Your task to perform on an android device: Go to display settings Image 0: 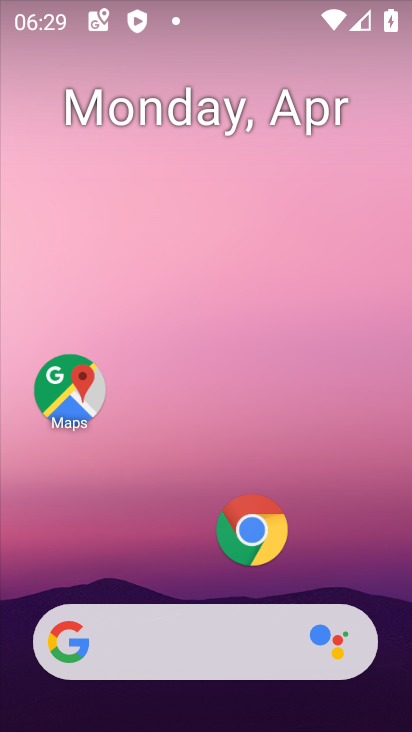
Step 0: drag from (315, 584) to (354, 1)
Your task to perform on an android device: Go to display settings Image 1: 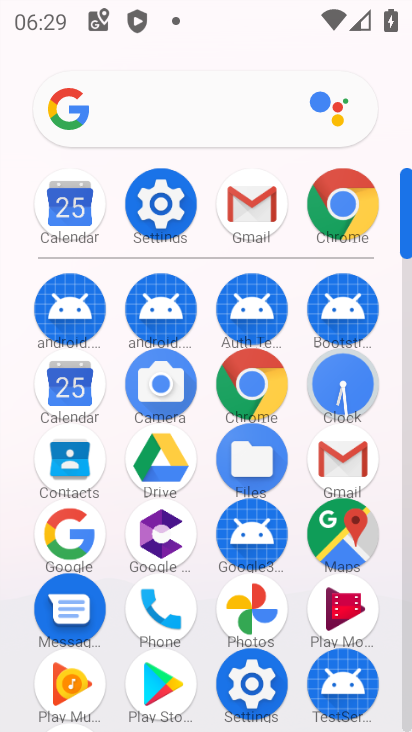
Step 1: click (247, 680)
Your task to perform on an android device: Go to display settings Image 2: 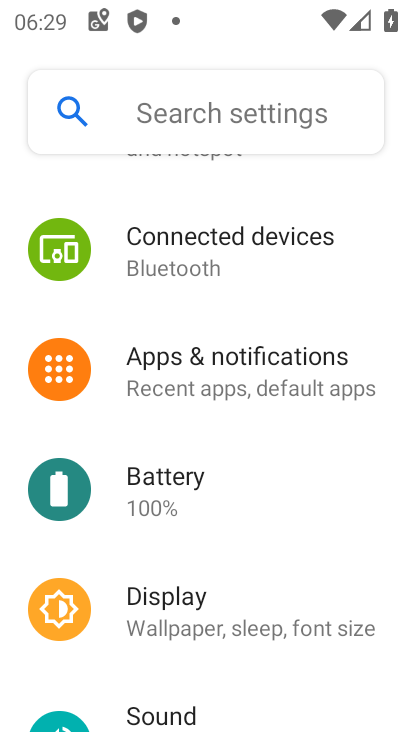
Step 2: click (106, 603)
Your task to perform on an android device: Go to display settings Image 3: 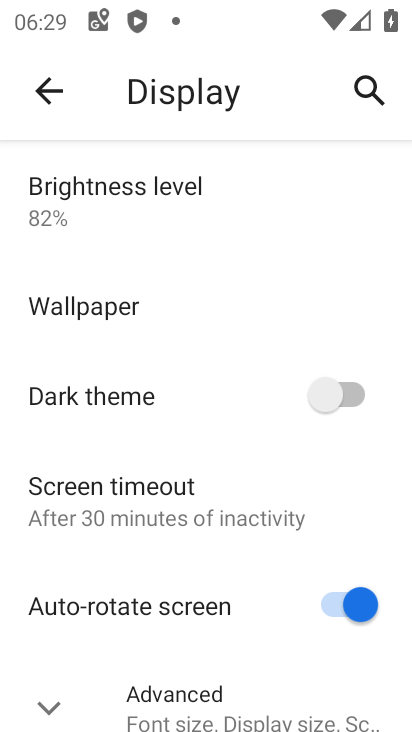
Step 3: click (61, 703)
Your task to perform on an android device: Go to display settings Image 4: 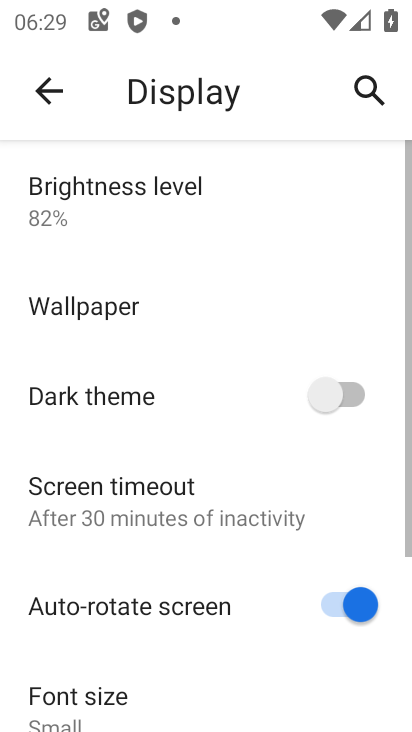
Step 4: click (166, 656)
Your task to perform on an android device: Go to display settings Image 5: 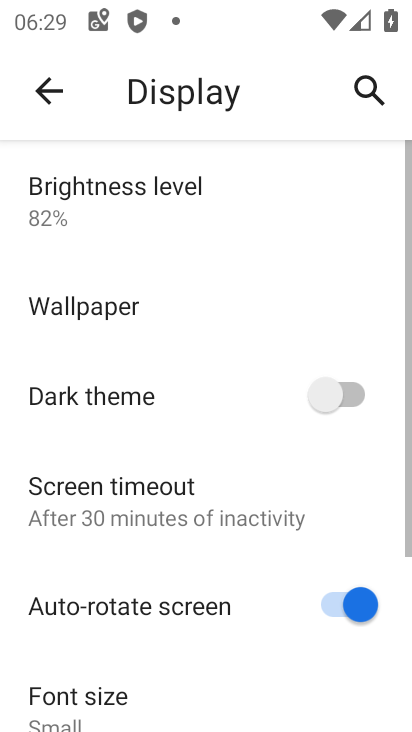
Step 5: task complete